Your task to perform on an android device: Go to settings Image 0: 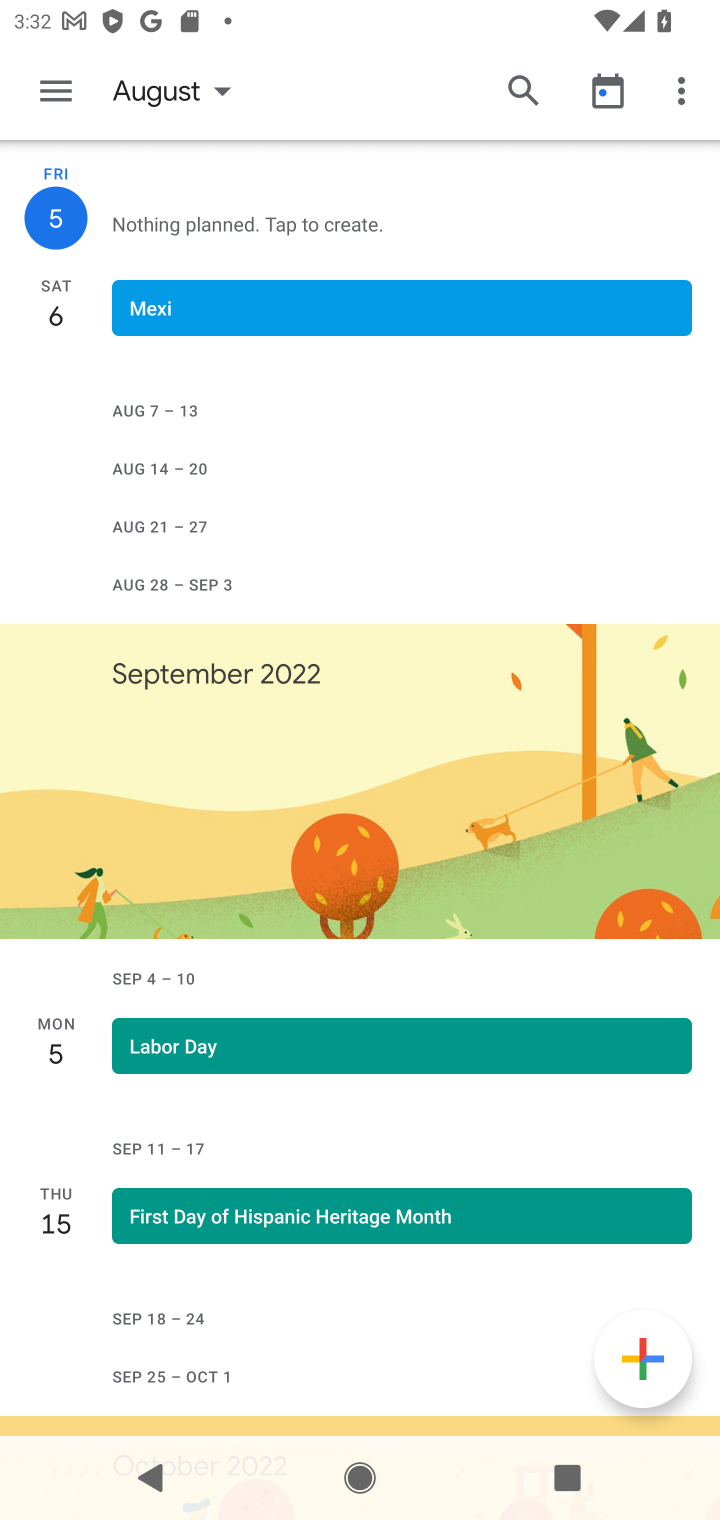
Step 0: press home button
Your task to perform on an android device: Go to settings Image 1: 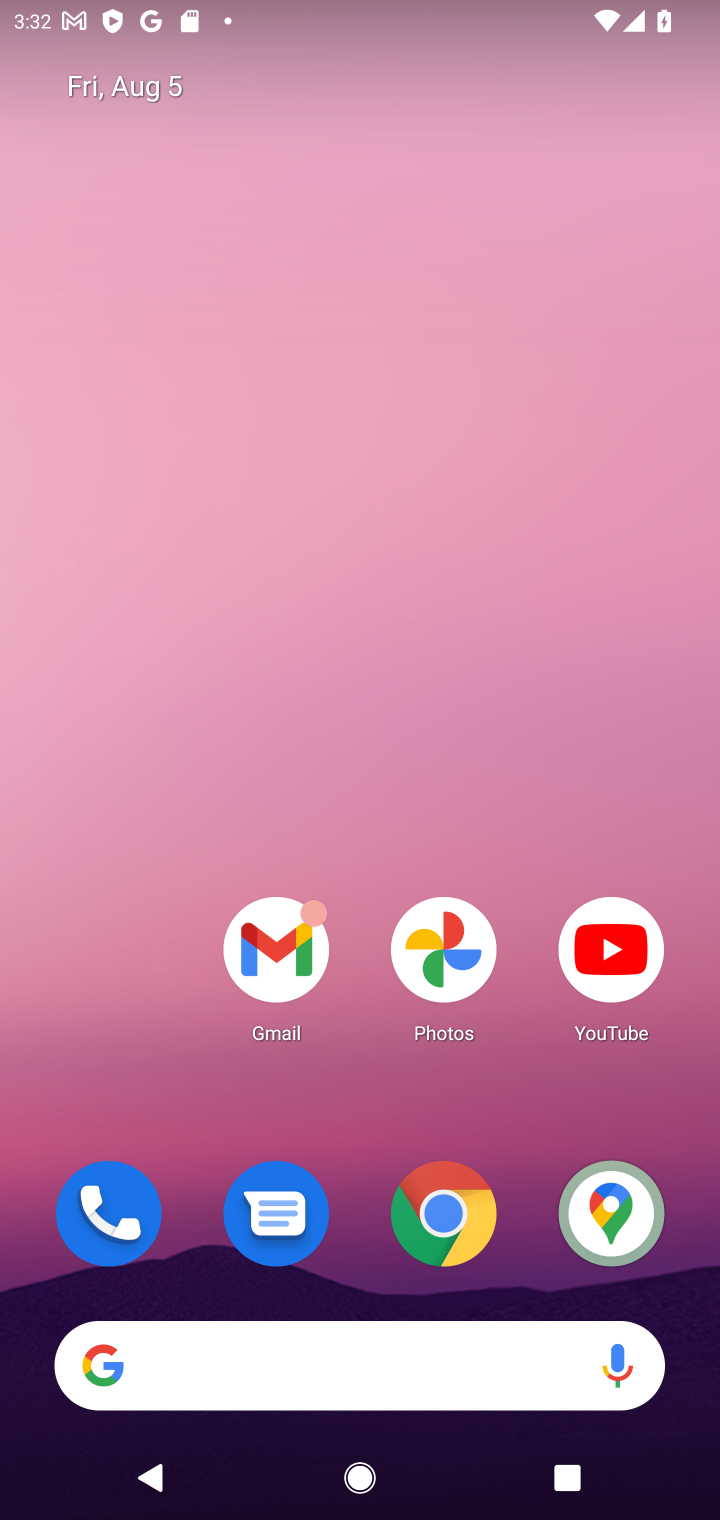
Step 1: drag from (365, 1292) to (380, 181)
Your task to perform on an android device: Go to settings Image 2: 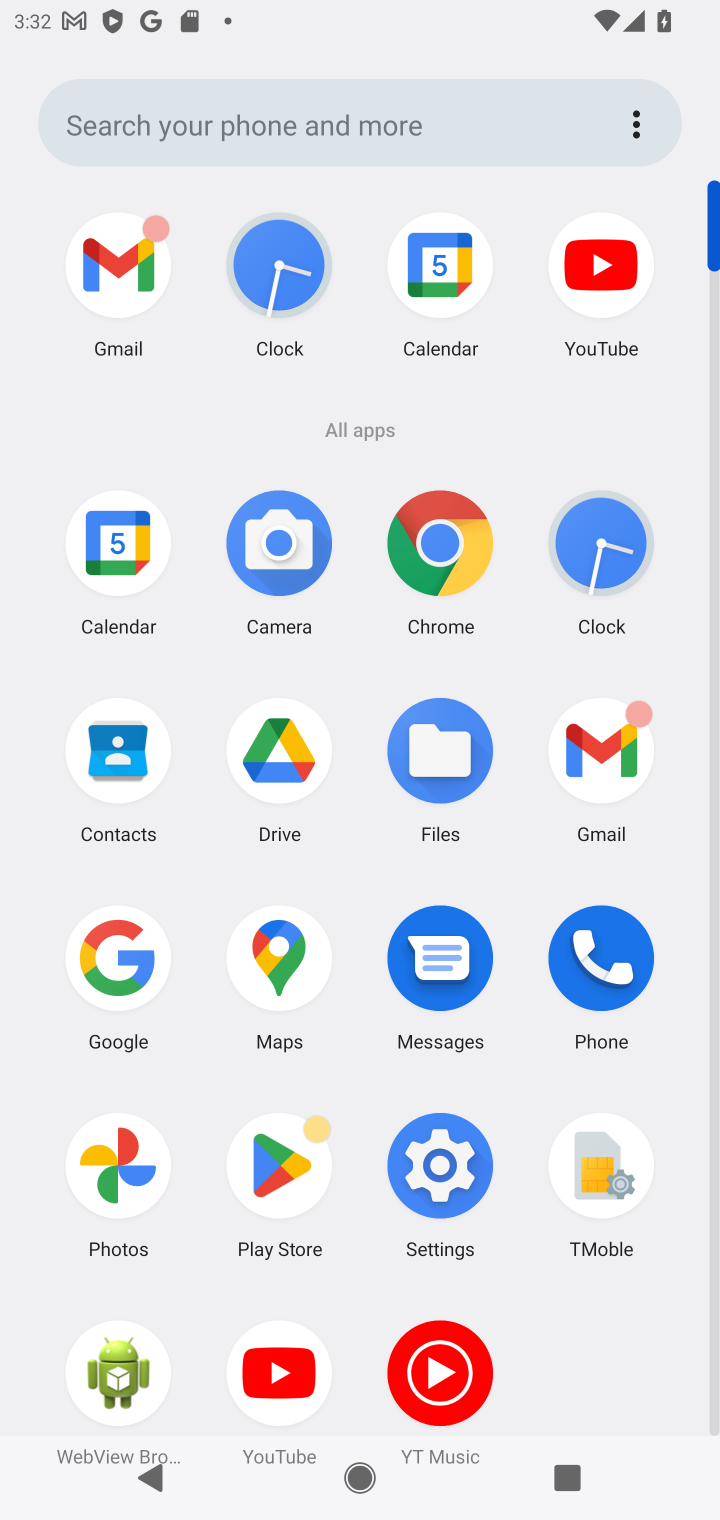
Step 2: click (479, 1149)
Your task to perform on an android device: Go to settings Image 3: 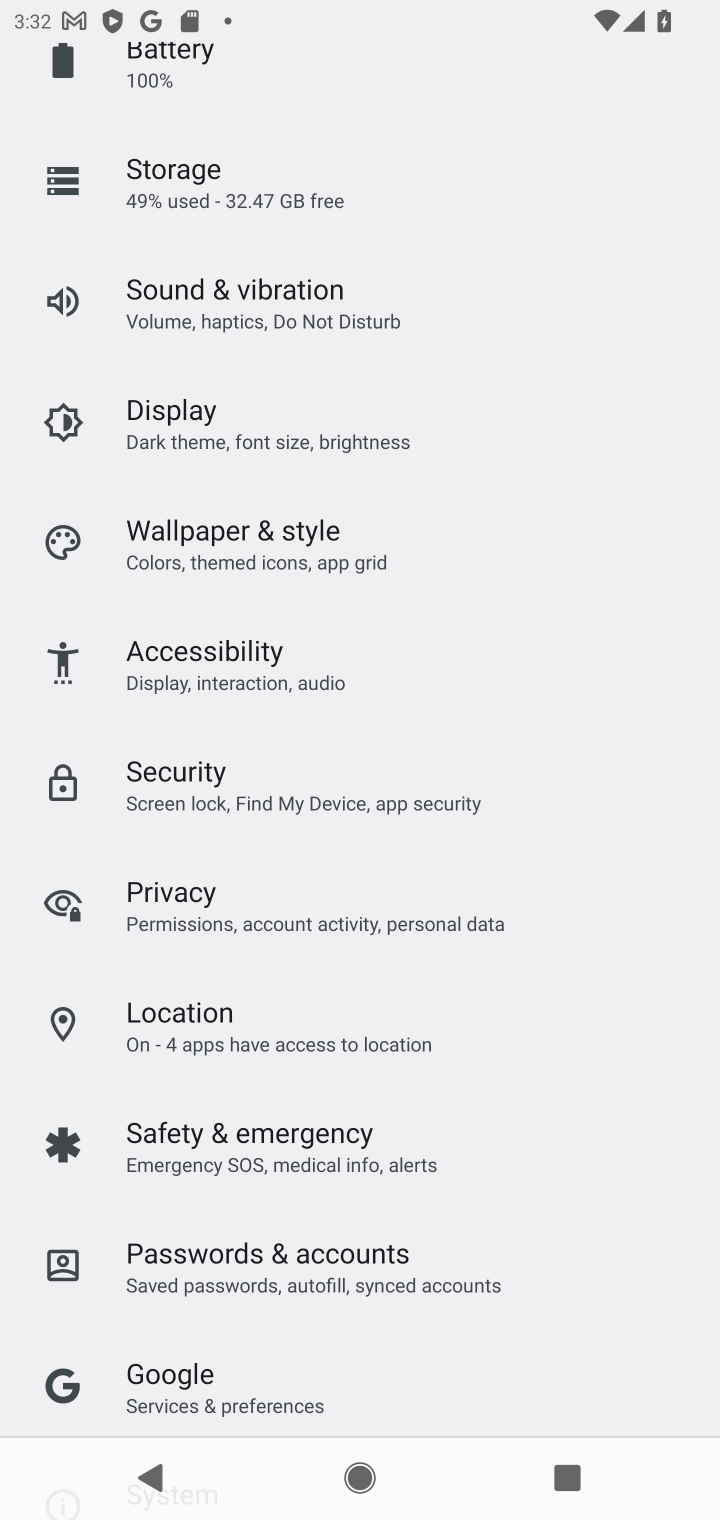
Step 3: task complete